Your task to perform on an android device: open a bookmark in the chrome app Image 0: 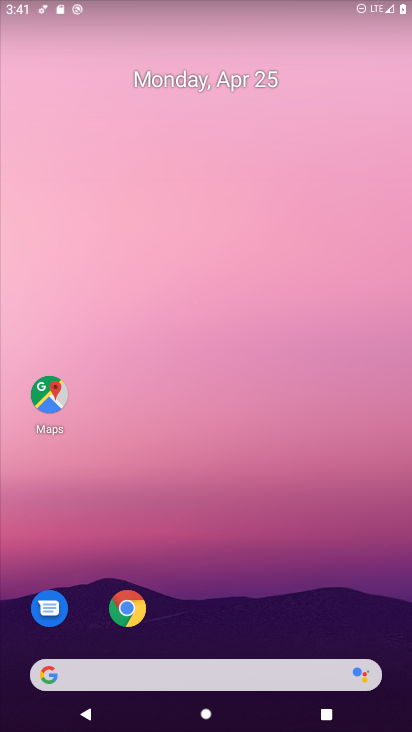
Step 0: drag from (266, 702) to (334, 149)
Your task to perform on an android device: open a bookmark in the chrome app Image 1: 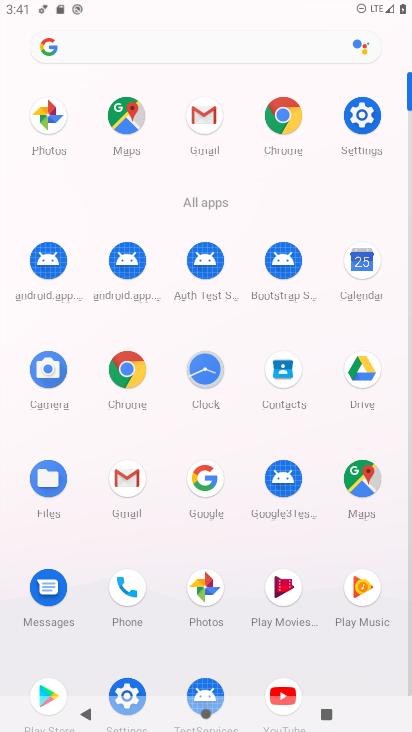
Step 1: click (116, 371)
Your task to perform on an android device: open a bookmark in the chrome app Image 2: 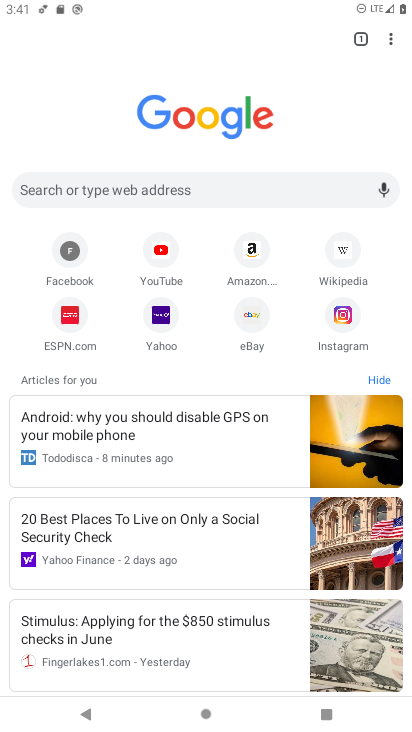
Step 2: click (392, 52)
Your task to perform on an android device: open a bookmark in the chrome app Image 3: 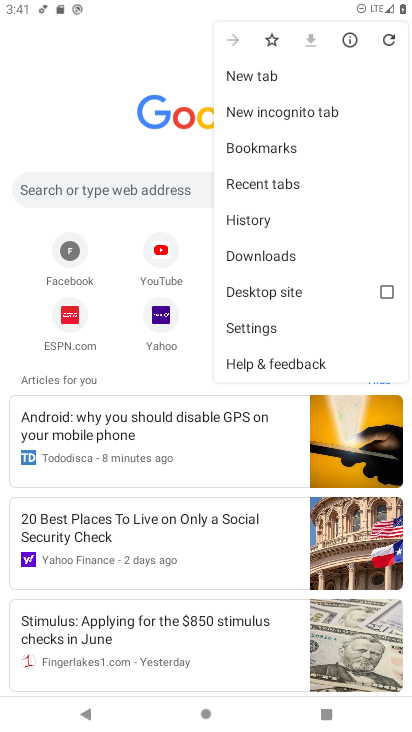
Step 3: click (269, 153)
Your task to perform on an android device: open a bookmark in the chrome app Image 4: 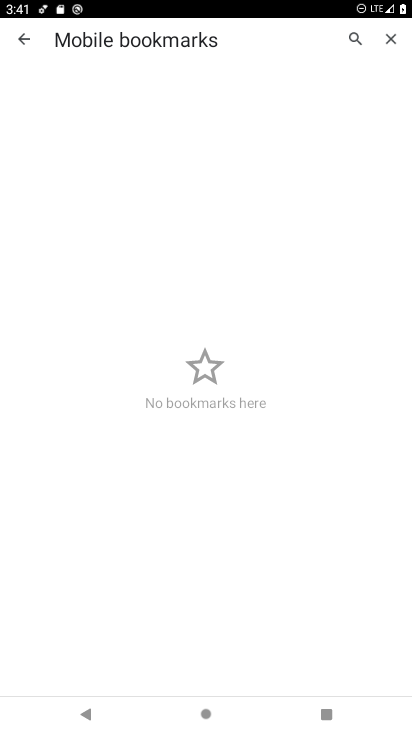
Step 4: task complete